Your task to perform on an android device: open app "Nova Launcher" Image 0: 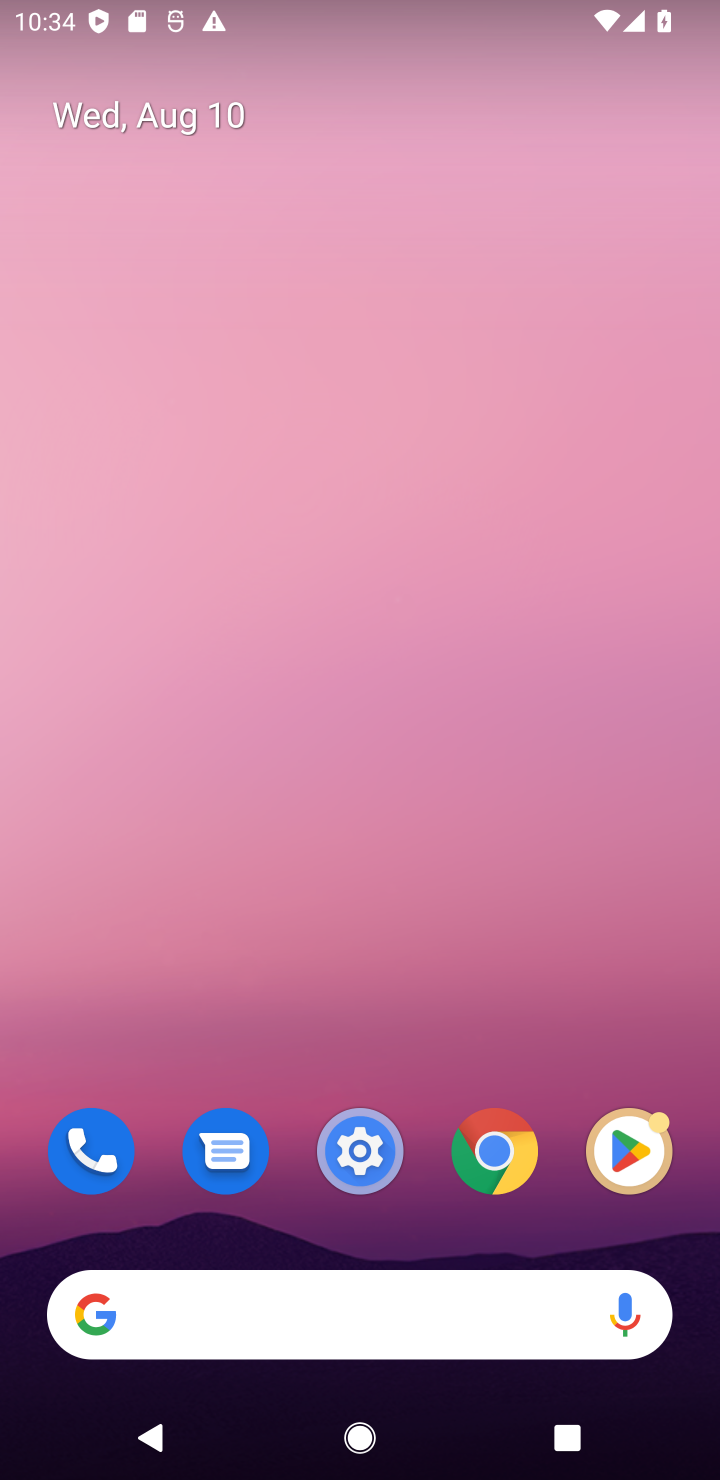
Step 0: press home button
Your task to perform on an android device: open app "Nova Launcher" Image 1: 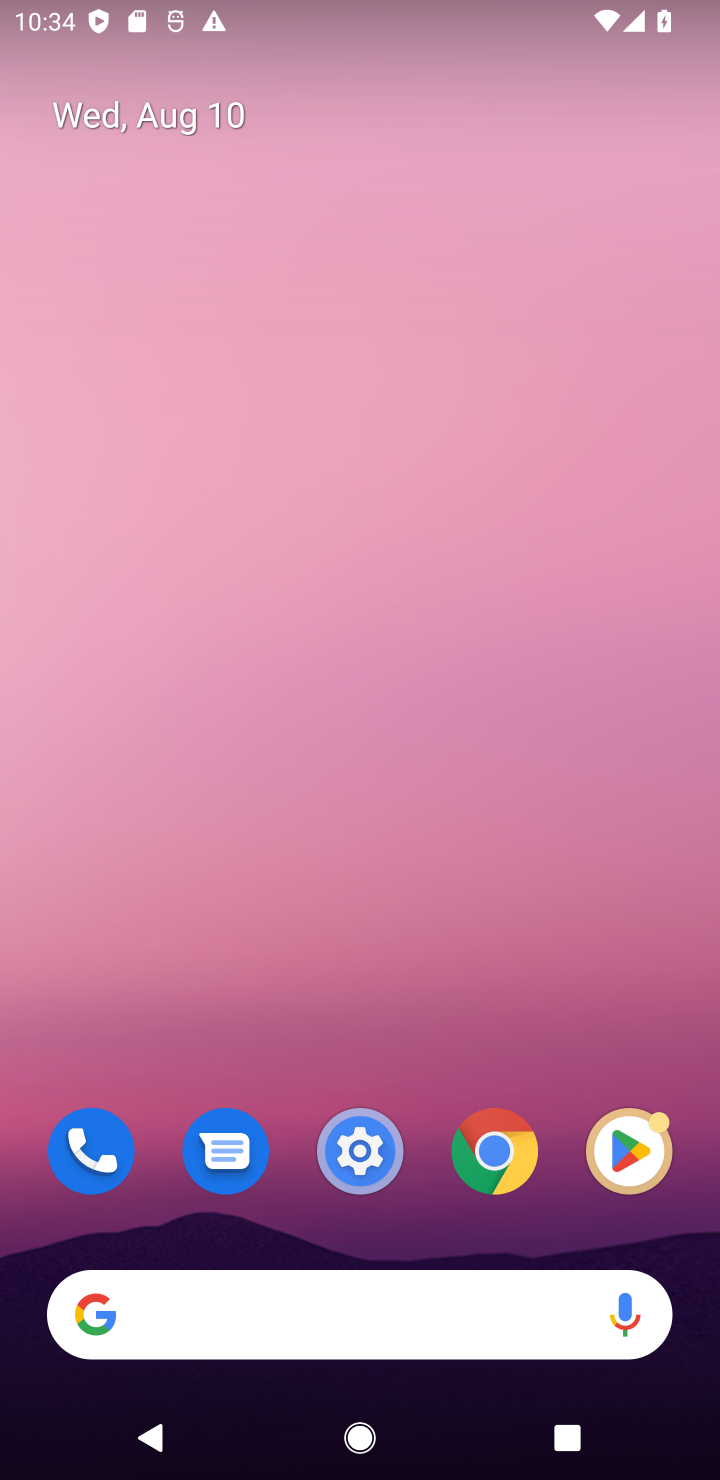
Step 1: click (616, 1141)
Your task to perform on an android device: open app "Nova Launcher" Image 2: 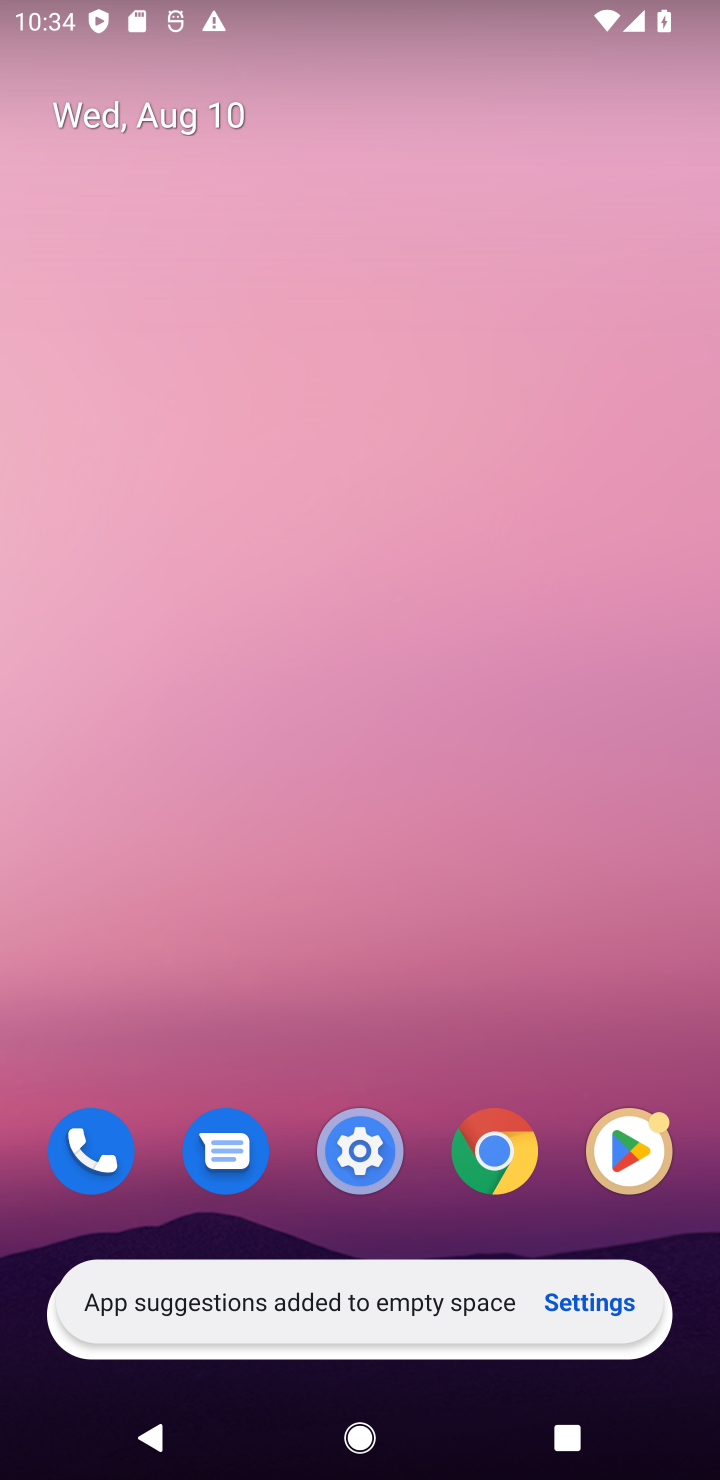
Step 2: drag from (553, 1054) to (536, 90)
Your task to perform on an android device: open app "Nova Launcher" Image 3: 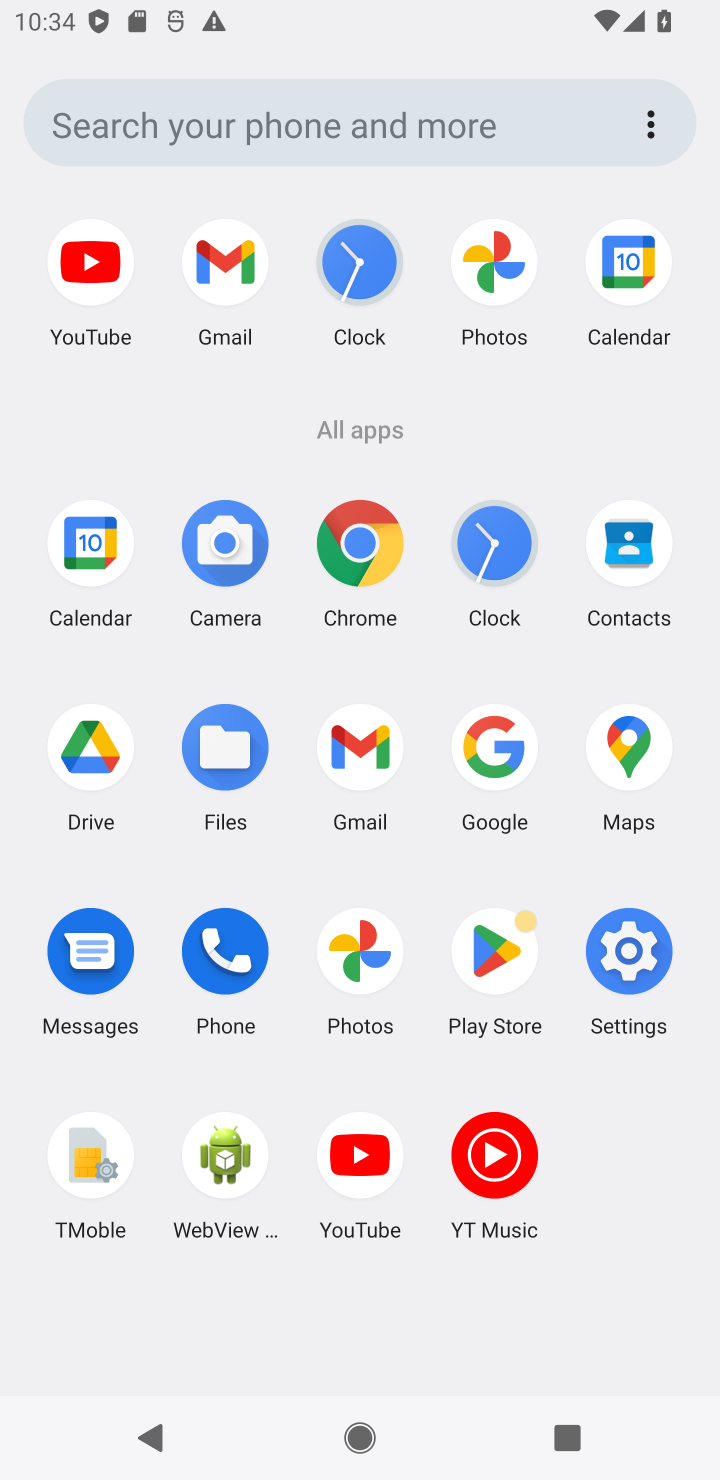
Step 3: click (474, 938)
Your task to perform on an android device: open app "Nova Launcher" Image 4: 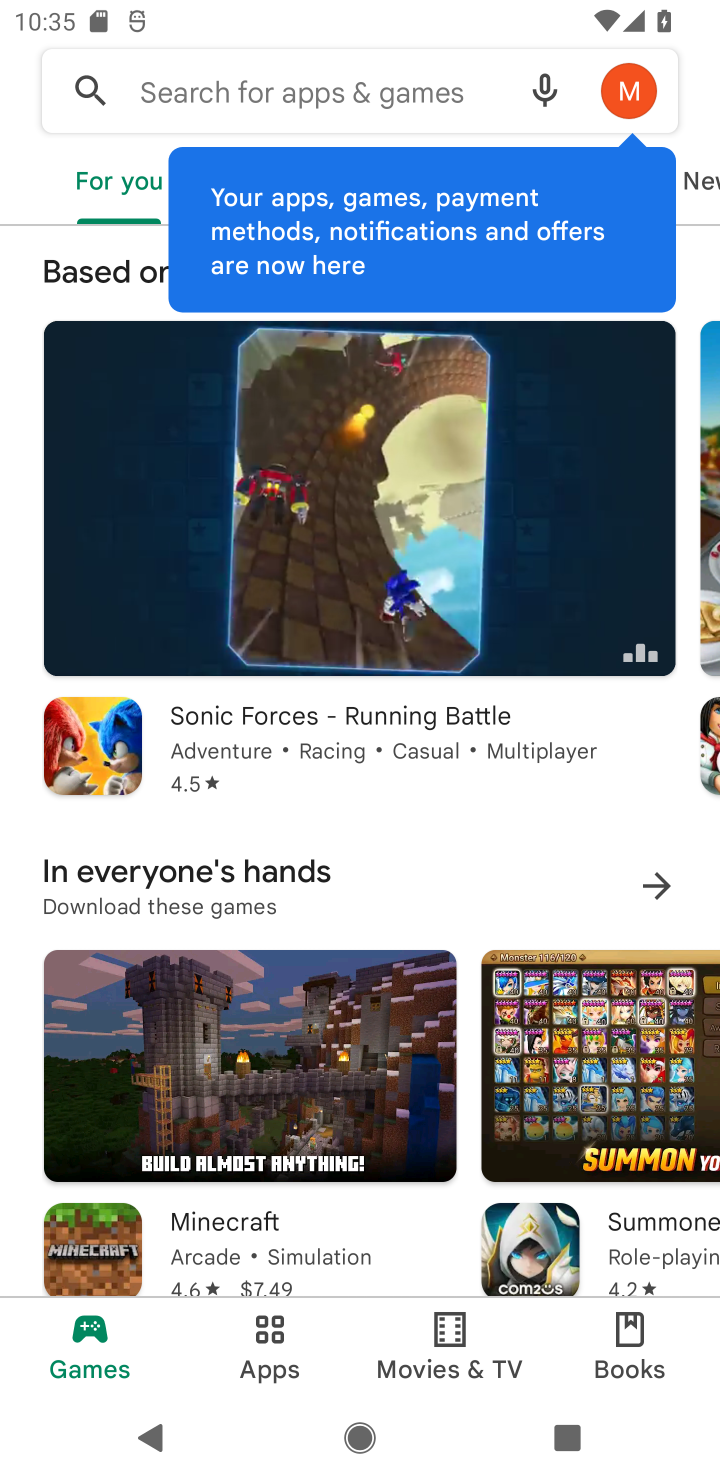
Step 4: click (236, 80)
Your task to perform on an android device: open app "Nova Launcher" Image 5: 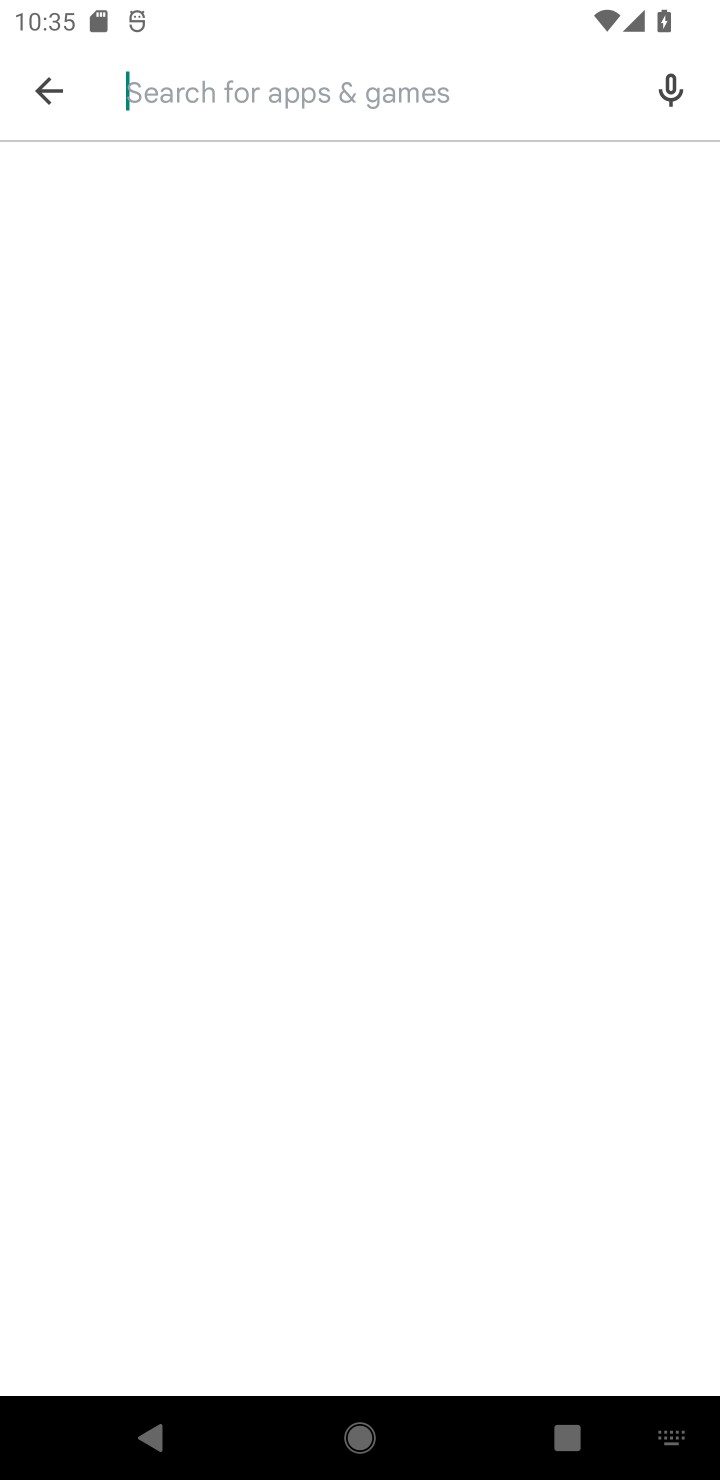
Step 5: type "Nova Launcher"
Your task to perform on an android device: open app "Nova Launcher" Image 6: 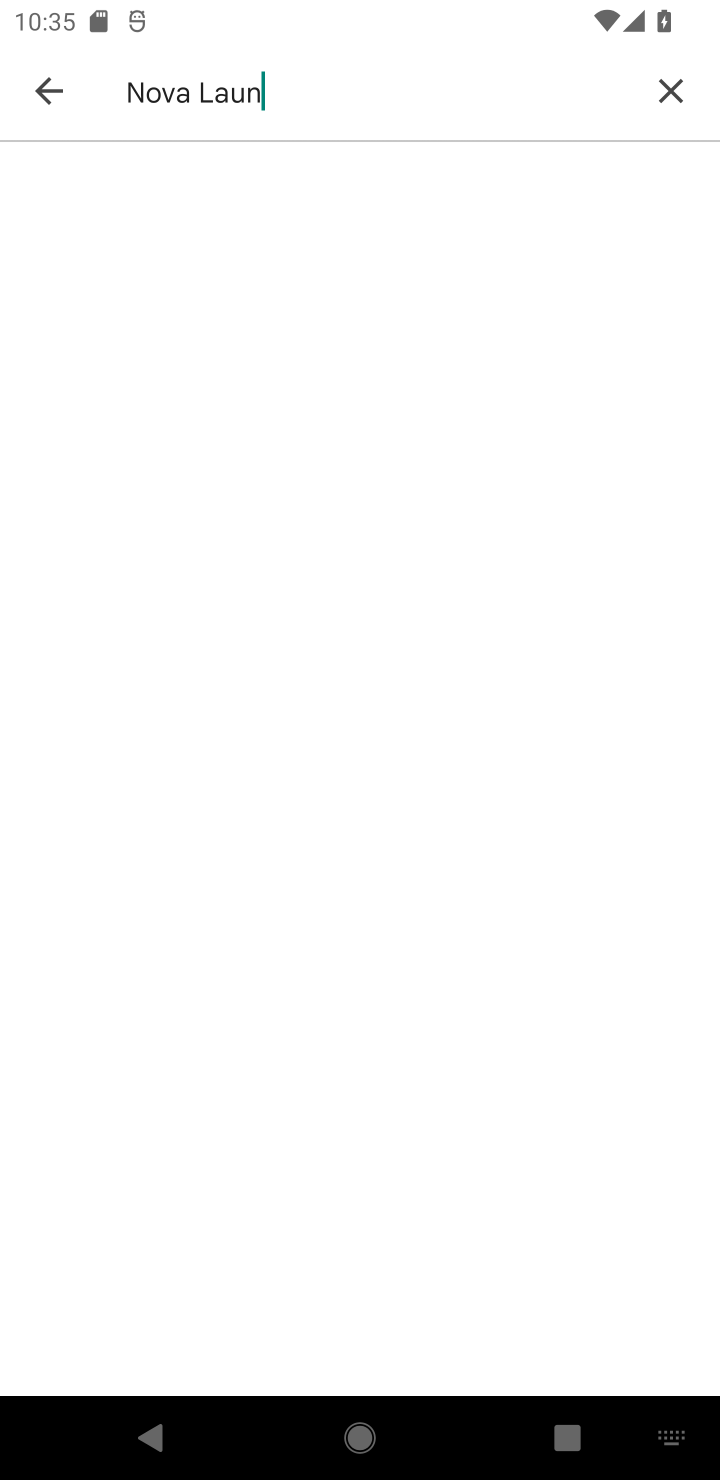
Step 6: type ""
Your task to perform on an android device: open app "Nova Launcher" Image 7: 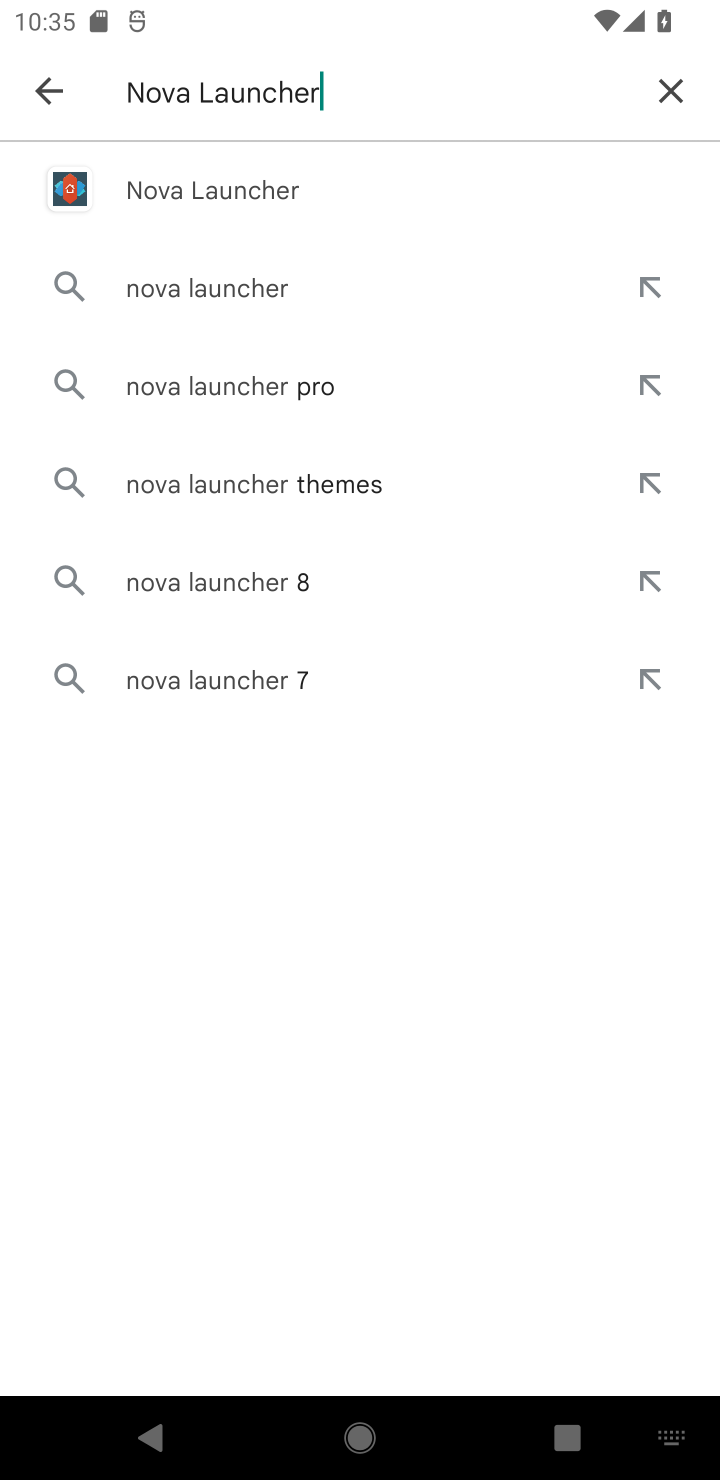
Step 7: click (190, 191)
Your task to perform on an android device: open app "Nova Launcher" Image 8: 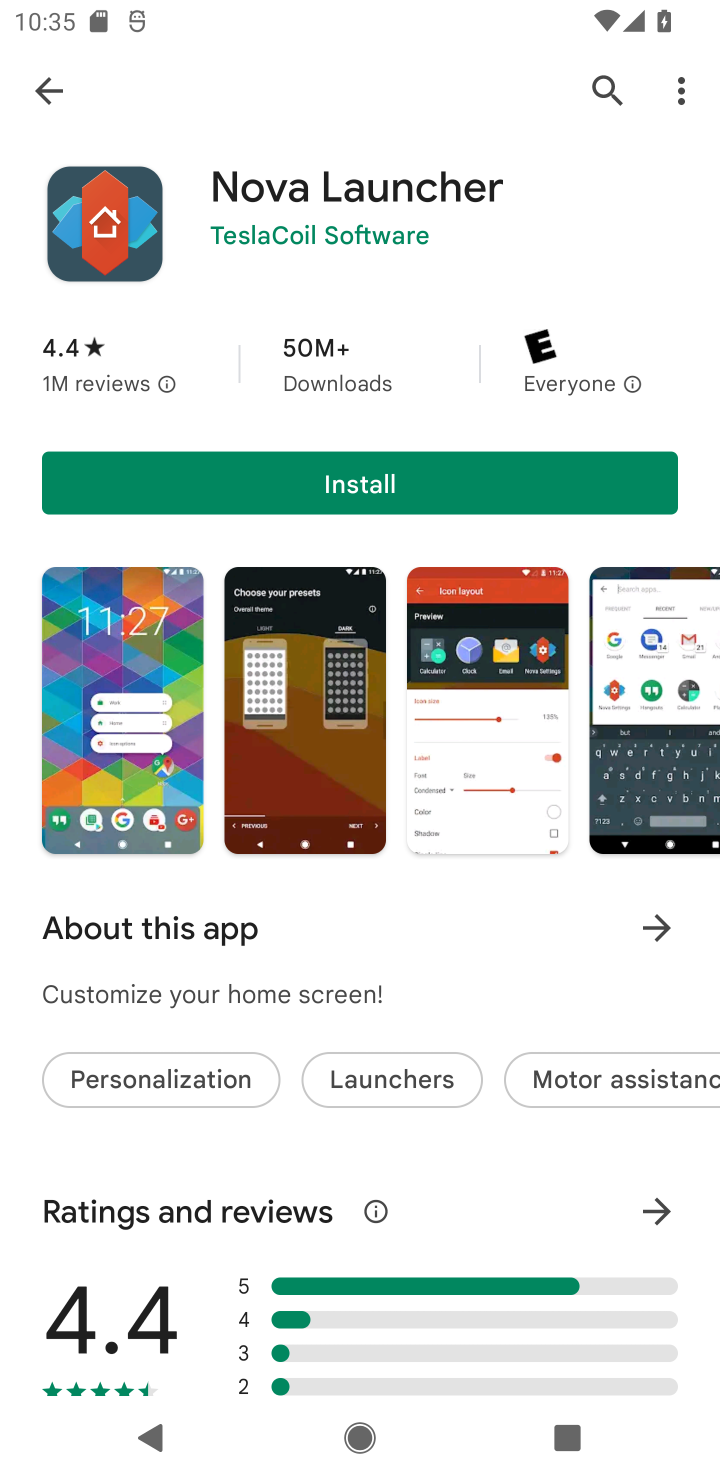
Step 8: task complete